Your task to perform on an android device: install app "Move to iOS" Image 0: 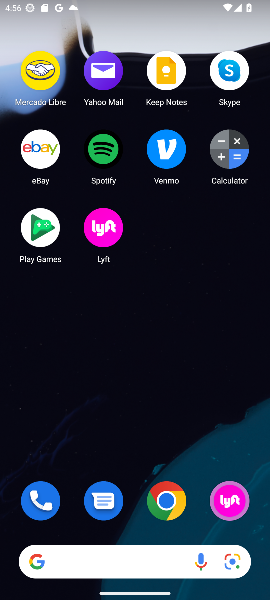
Step 0: press home button
Your task to perform on an android device: install app "Move to iOS" Image 1: 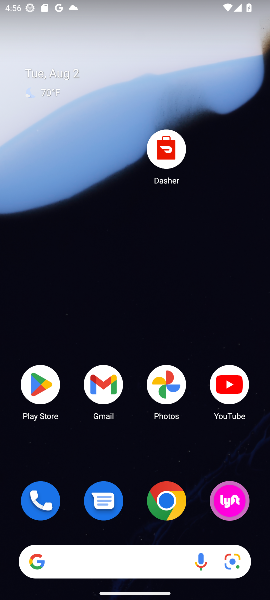
Step 1: click (52, 385)
Your task to perform on an android device: install app "Move to iOS" Image 2: 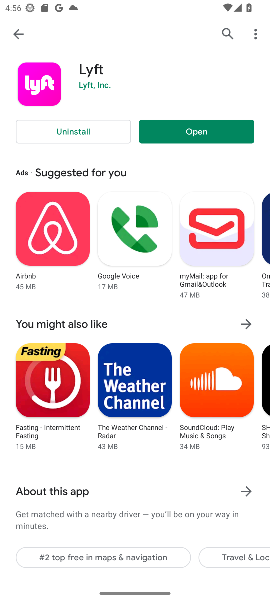
Step 2: click (224, 30)
Your task to perform on an android device: install app "Move to iOS" Image 3: 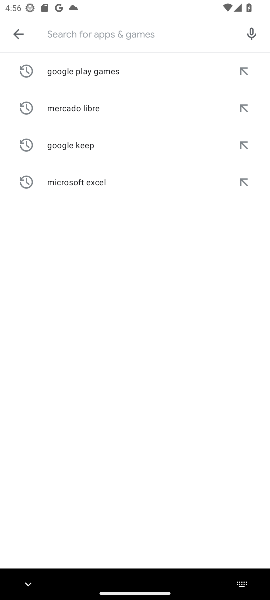
Step 3: type "Move to iOS"
Your task to perform on an android device: install app "Move to iOS" Image 4: 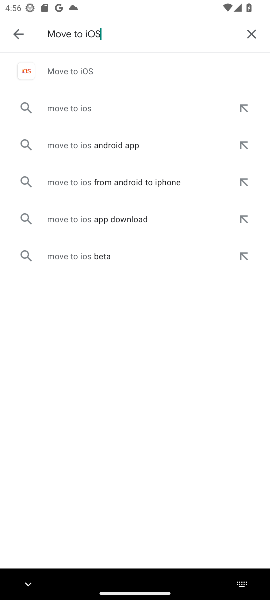
Step 4: click (73, 74)
Your task to perform on an android device: install app "Move to iOS" Image 5: 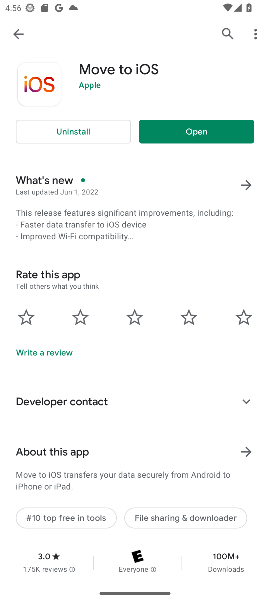
Step 5: task complete